Your task to perform on an android device: change timer sound Image 0: 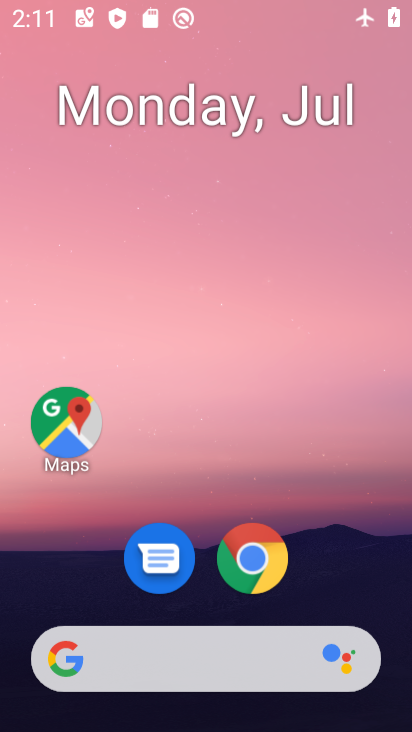
Step 0: press home button
Your task to perform on an android device: change timer sound Image 1: 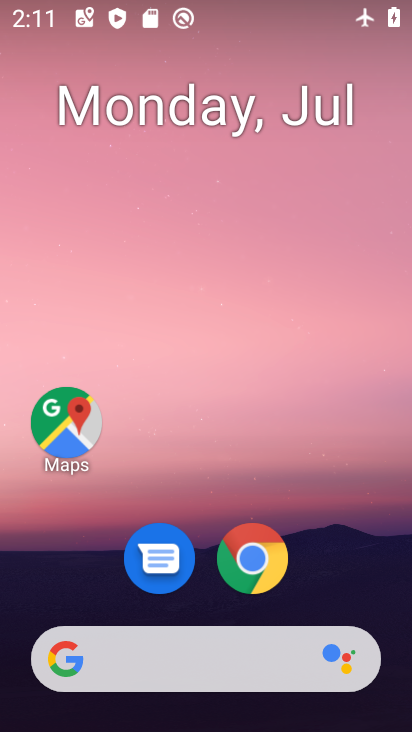
Step 1: drag from (366, 576) to (373, 134)
Your task to perform on an android device: change timer sound Image 2: 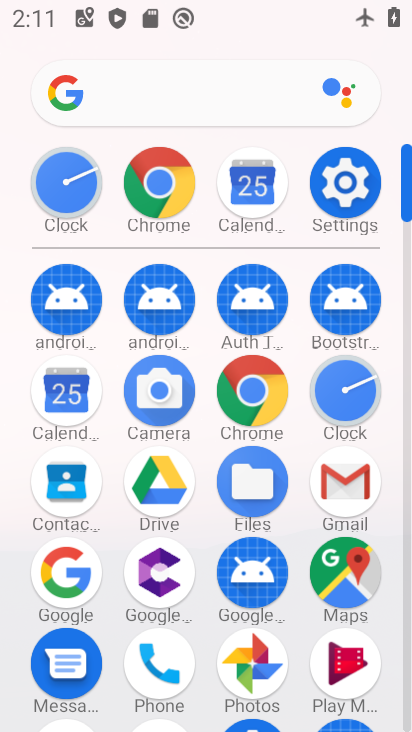
Step 2: click (372, 387)
Your task to perform on an android device: change timer sound Image 3: 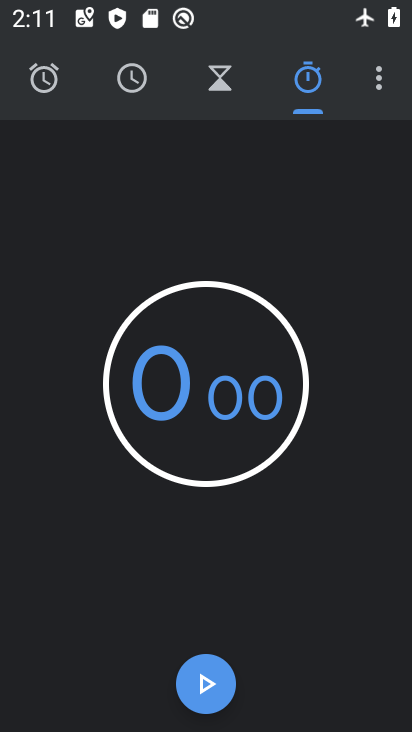
Step 3: click (378, 87)
Your task to perform on an android device: change timer sound Image 4: 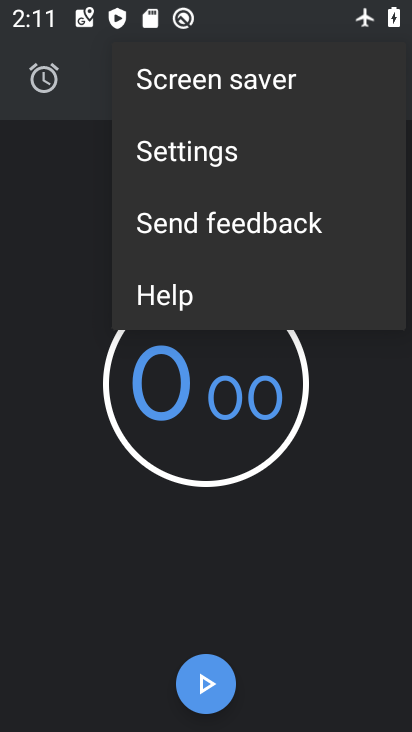
Step 4: click (332, 150)
Your task to perform on an android device: change timer sound Image 5: 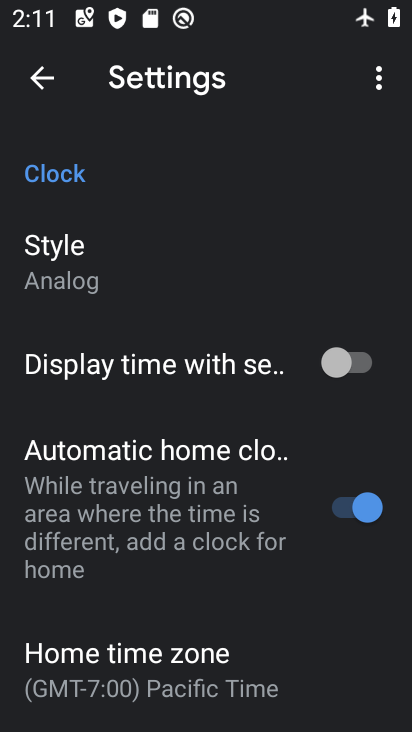
Step 5: drag from (313, 571) to (319, 448)
Your task to perform on an android device: change timer sound Image 6: 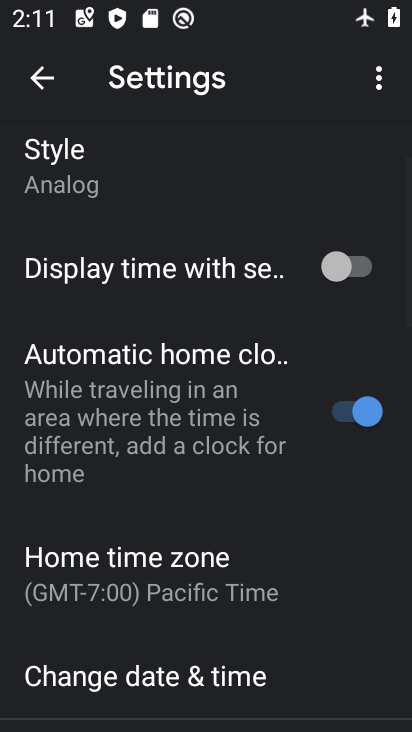
Step 6: drag from (307, 567) to (308, 375)
Your task to perform on an android device: change timer sound Image 7: 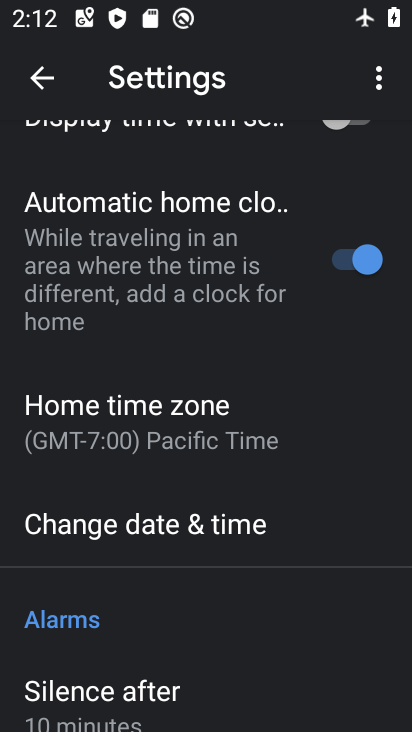
Step 7: drag from (292, 519) to (277, 387)
Your task to perform on an android device: change timer sound Image 8: 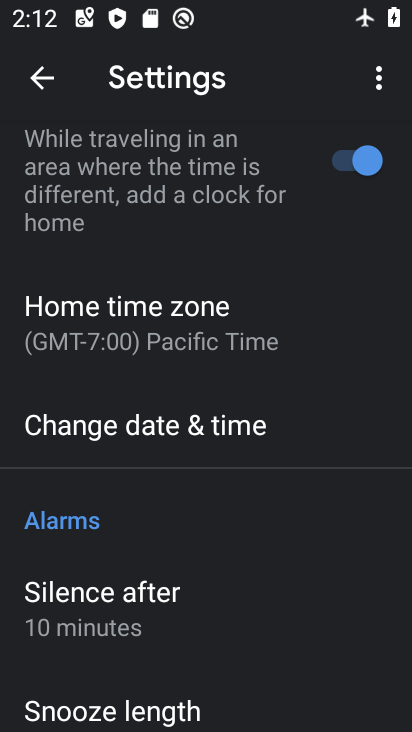
Step 8: drag from (259, 499) to (269, 299)
Your task to perform on an android device: change timer sound Image 9: 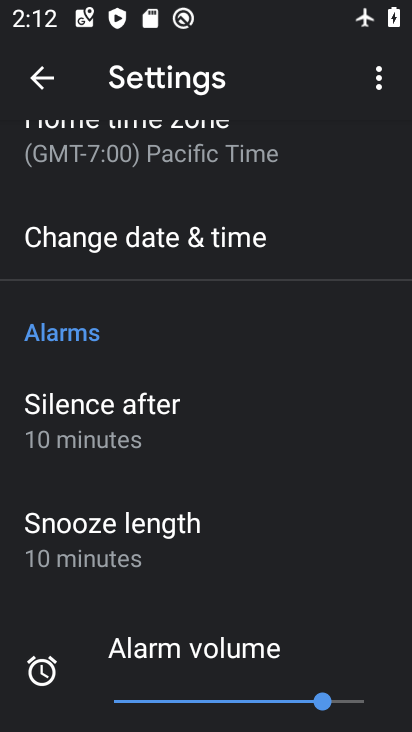
Step 9: drag from (247, 445) to (258, 332)
Your task to perform on an android device: change timer sound Image 10: 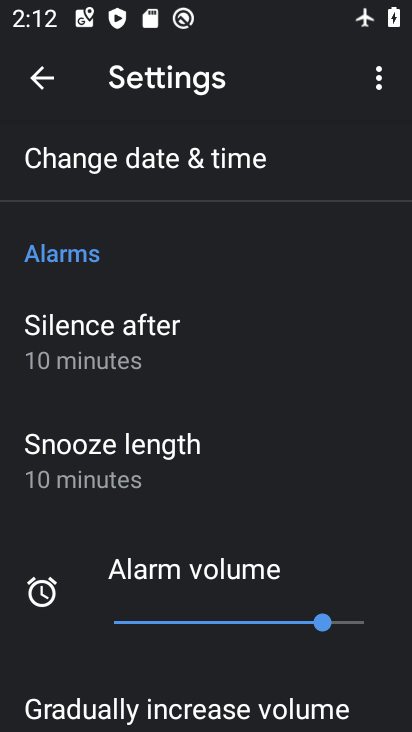
Step 10: drag from (271, 492) to (273, 372)
Your task to perform on an android device: change timer sound Image 11: 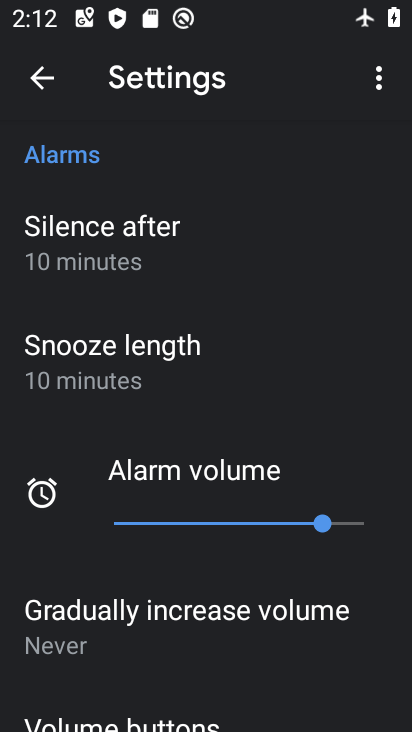
Step 11: drag from (278, 272) to (276, 383)
Your task to perform on an android device: change timer sound Image 12: 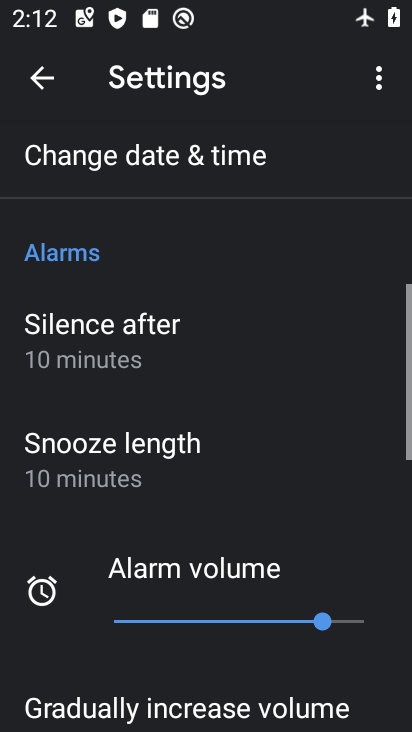
Step 12: drag from (296, 502) to (296, 258)
Your task to perform on an android device: change timer sound Image 13: 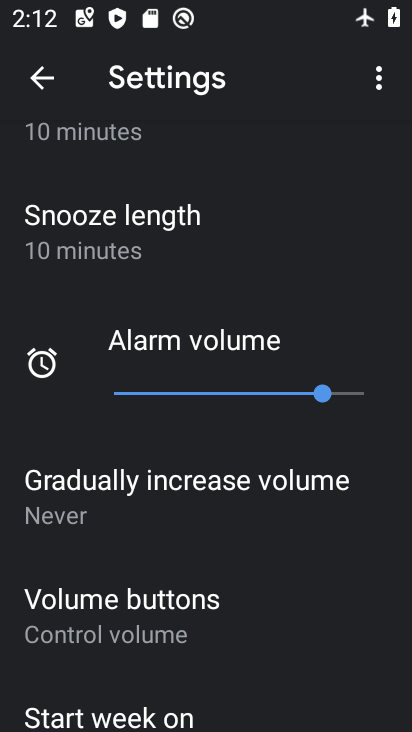
Step 13: drag from (277, 562) to (276, 327)
Your task to perform on an android device: change timer sound Image 14: 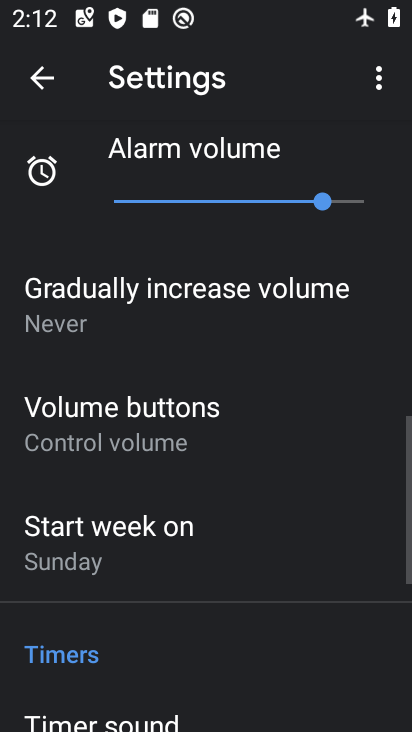
Step 14: drag from (251, 552) to (257, 402)
Your task to perform on an android device: change timer sound Image 15: 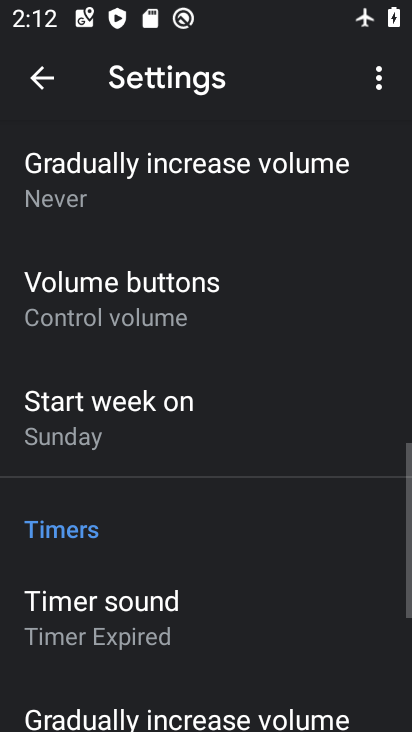
Step 15: click (192, 624)
Your task to perform on an android device: change timer sound Image 16: 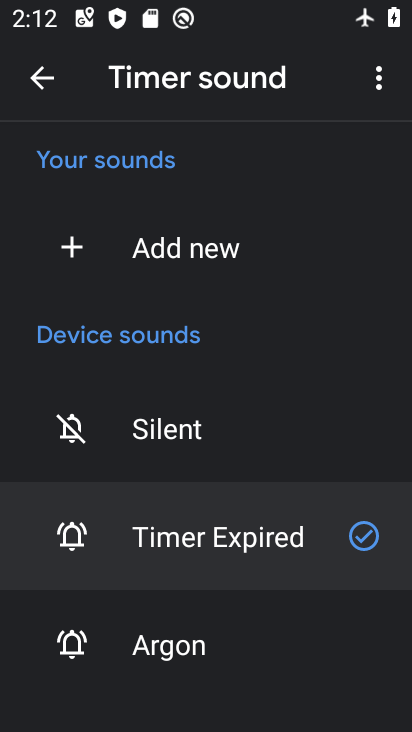
Step 16: click (174, 658)
Your task to perform on an android device: change timer sound Image 17: 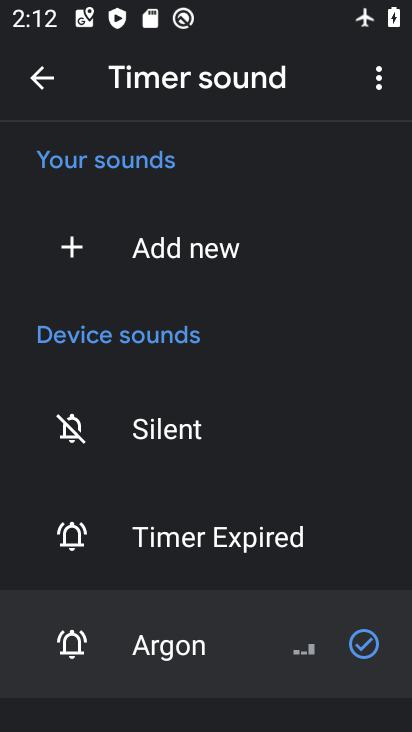
Step 17: task complete